Your task to perform on an android device: change notifications settings Image 0: 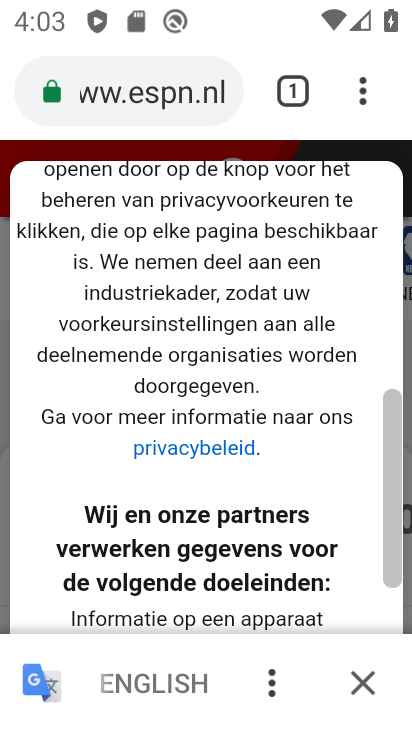
Step 0: drag from (346, 544) to (366, 464)
Your task to perform on an android device: change notifications settings Image 1: 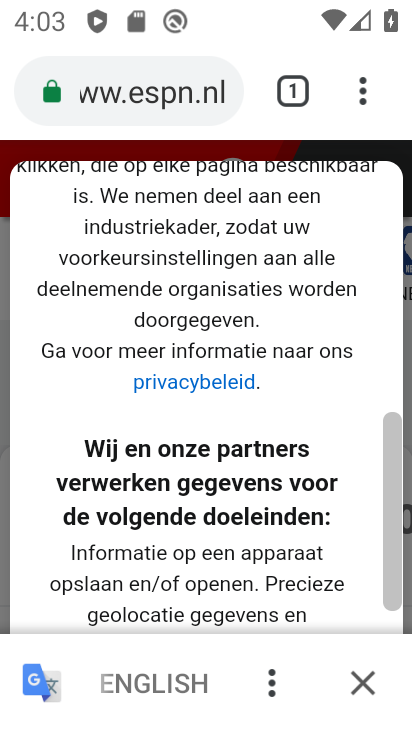
Step 1: press home button
Your task to perform on an android device: change notifications settings Image 2: 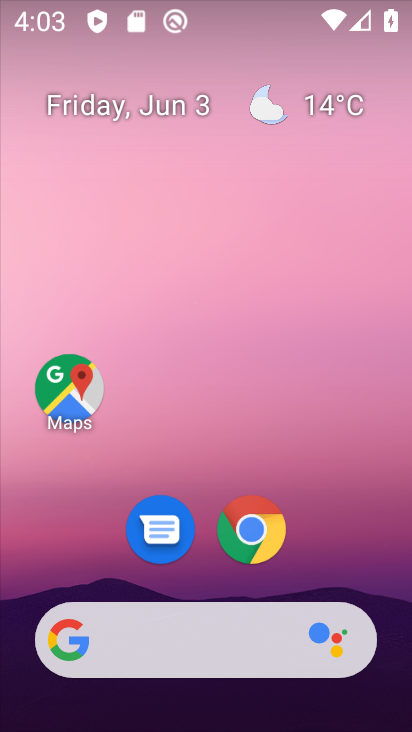
Step 2: drag from (321, 556) to (301, 89)
Your task to perform on an android device: change notifications settings Image 3: 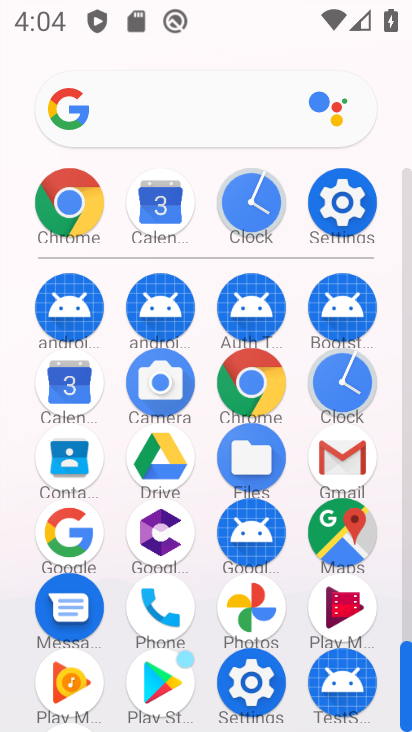
Step 3: click (334, 205)
Your task to perform on an android device: change notifications settings Image 4: 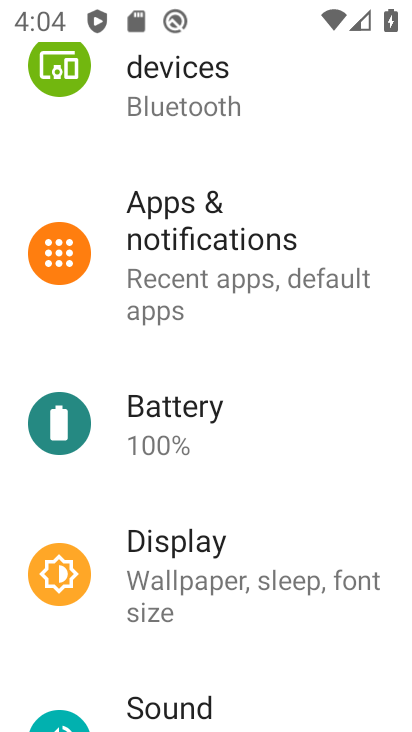
Step 4: drag from (270, 214) to (299, 659)
Your task to perform on an android device: change notifications settings Image 5: 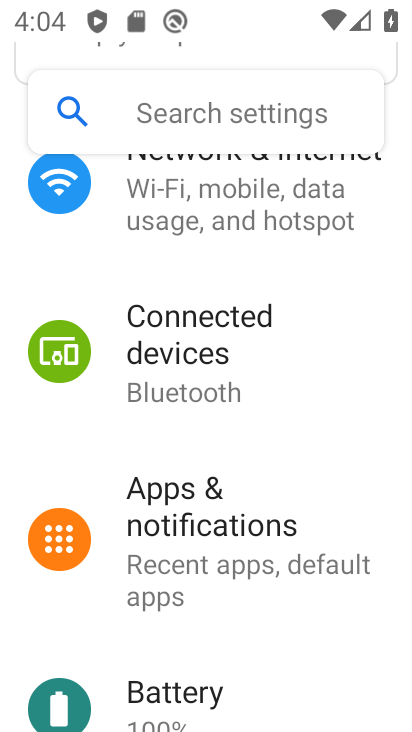
Step 5: drag from (214, 248) to (216, 730)
Your task to perform on an android device: change notifications settings Image 6: 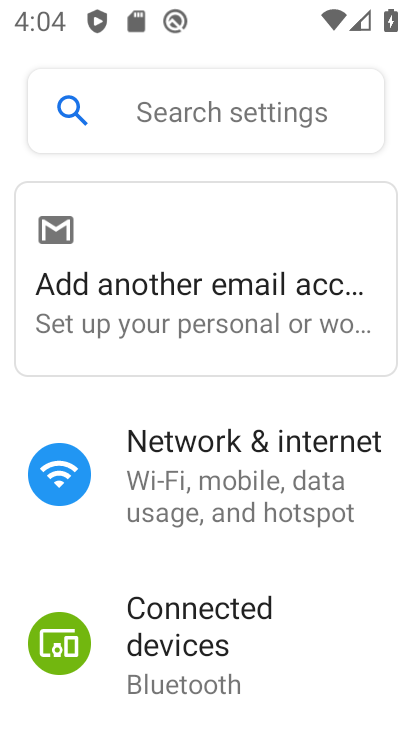
Step 6: drag from (221, 678) to (298, 308)
Your task to perform on an android device: change notifications settings Image 7: 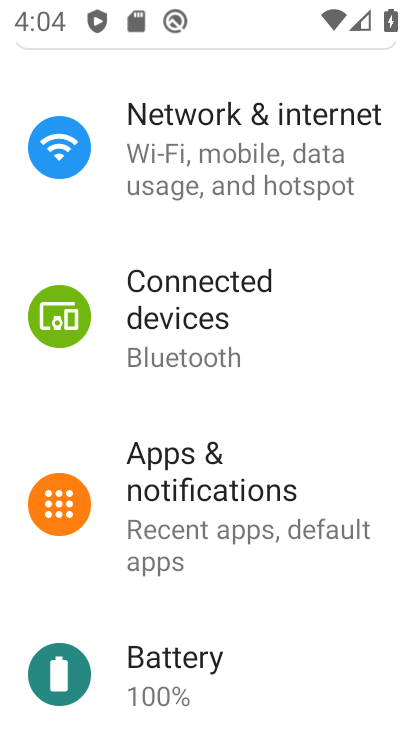
Step 7: click (273, 523)
Your task to perform on an android device: change notifications settings Image 8: 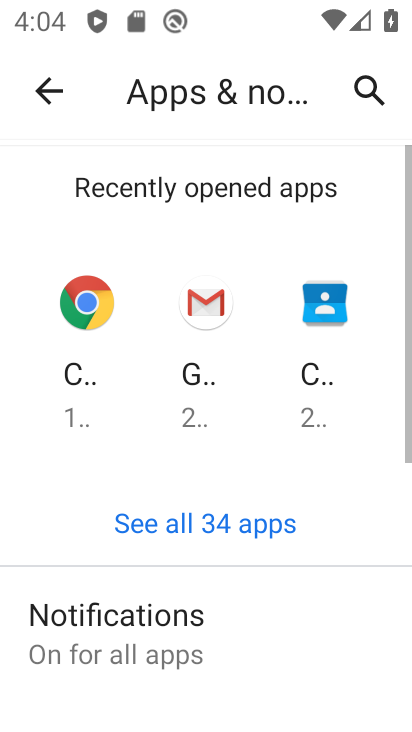
Step 8: click (140, 640)
Your task to perform on an android device: change notifications settings Image 9: 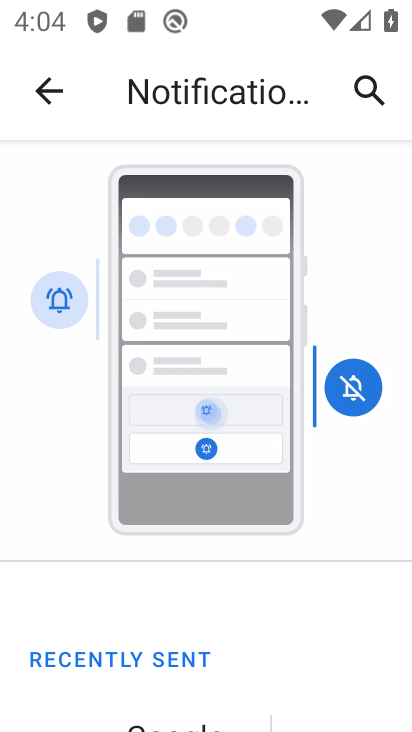
Step 9: drag from (105, 544) to (201, 155)
Your task to perform on an android device: change notifications settings Image 10: 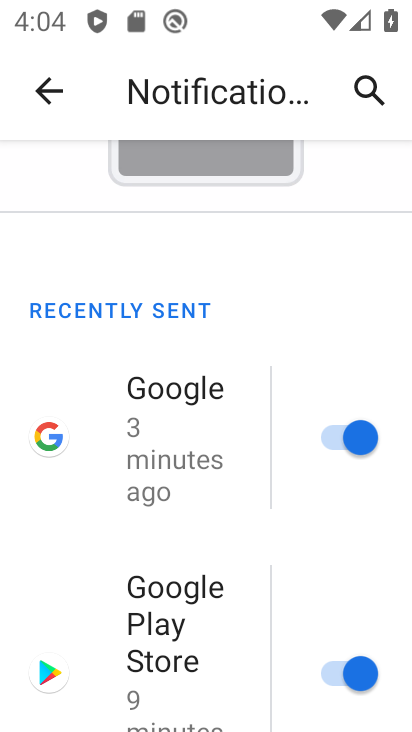
Step 10: drag from (150, 574) to (271, 124)
Your task to perform on an android device: change notifications settings Image 11: 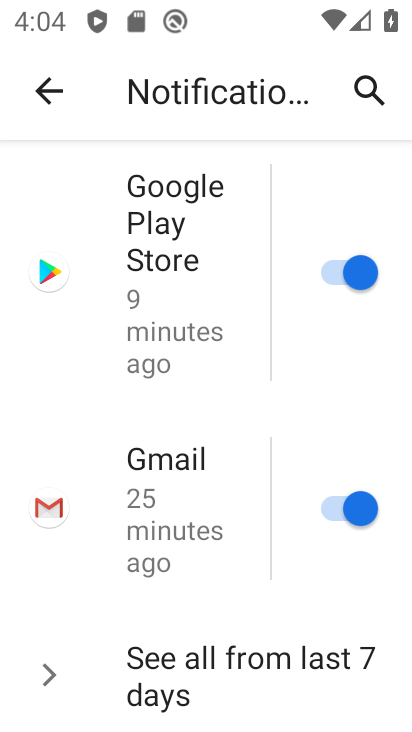
Step 11: drag from (188, 594) to (294, 94)
Your task to perform on an android device: change notifications settings Image 12: 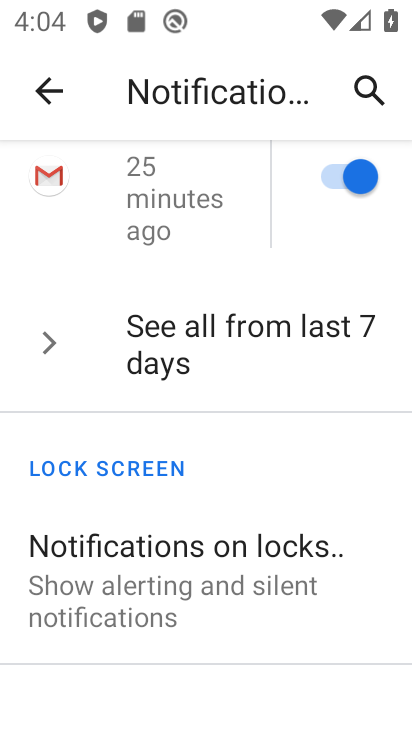
Step 12: click (329, 175)
Your task to perform on an android device: change notifications settings Image 13: 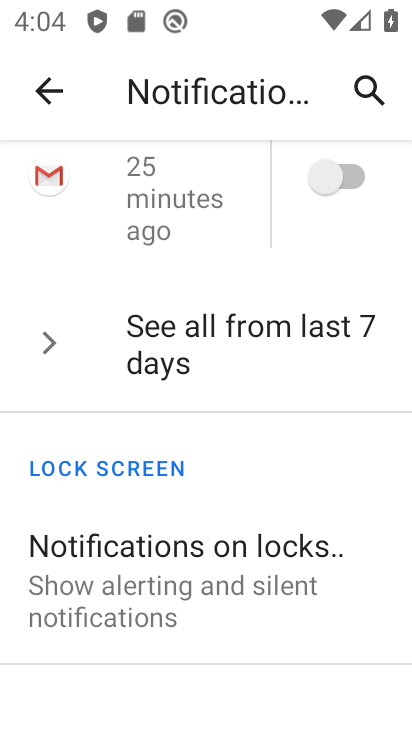
Step 13: task complete